Your task to perform on an android device: search for starred emails in the gmail app Image 0: 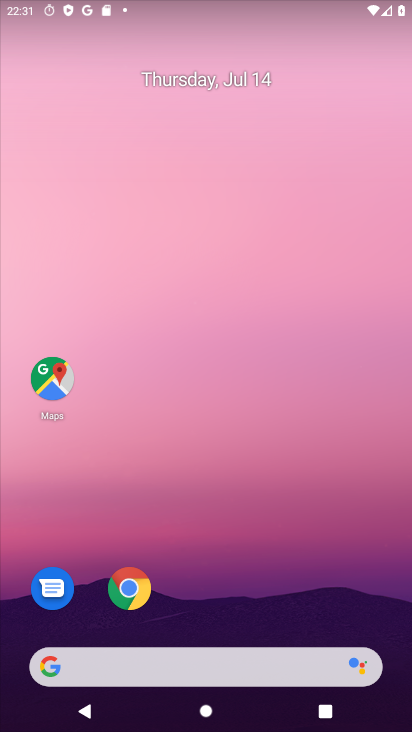
Step 0: drag from (221, 615) to (235, 157)
Your task to perform on an android device: search for starred emails in the gmail app Image 1: 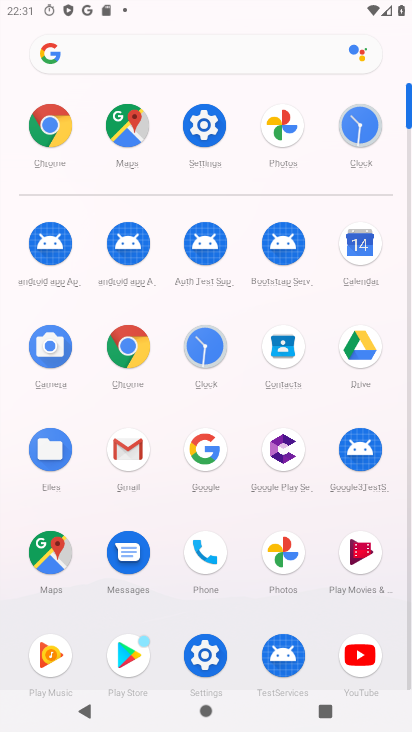
Step 1: click (130, 453)
Your task to perform on an android device: search for starred emails in the gmail app Image 2: 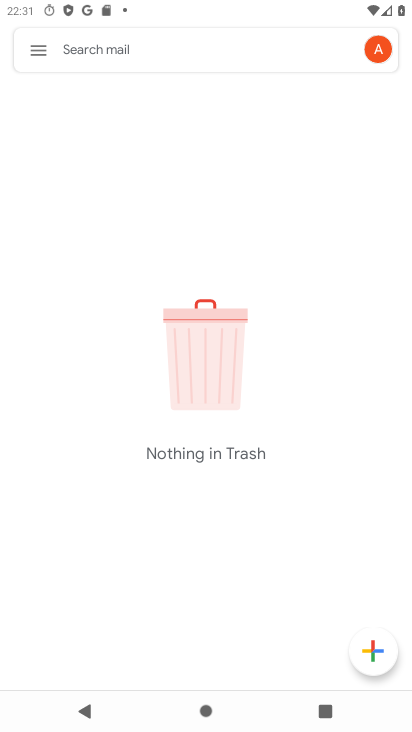
Step 2: click (39, 56)
Your task to perform on an android device: search for starred emails in the gmail app Image 3: 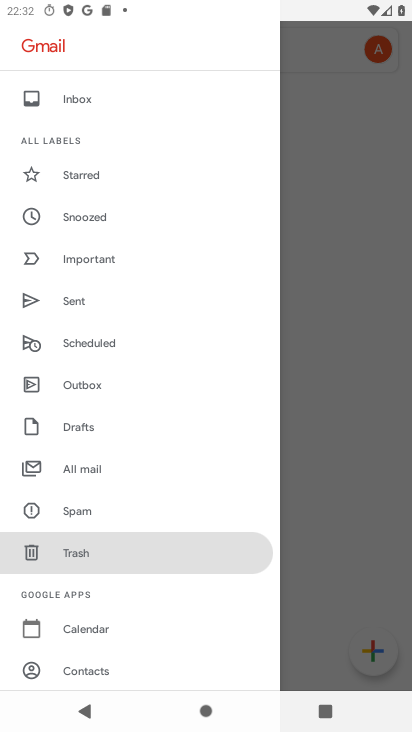
Step 3: click (93, 173)
Your task to perform on an android device: search for starred emails in the gmail app Image 4: 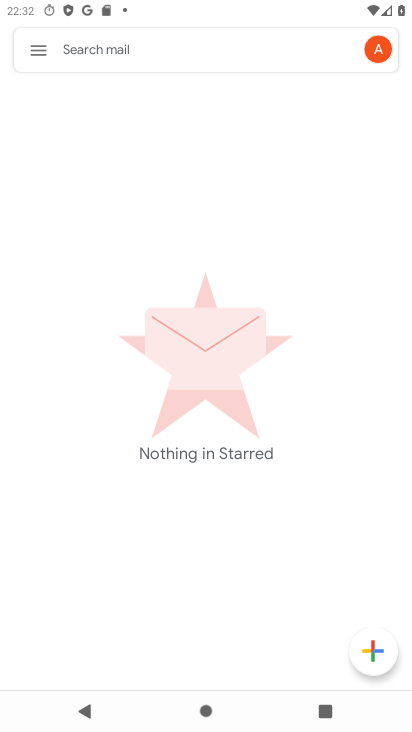
Step 4: task complete